Your task to perform on an android device: Open Chrome and go to settings Image 0: 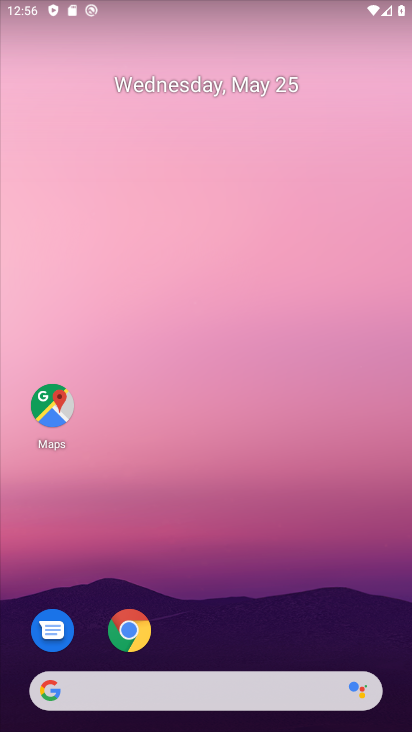
Step 0: drag from (333, 696) to (288, 333)
Your task to perform on an android device: Open Chrome and go to settings Image 1: 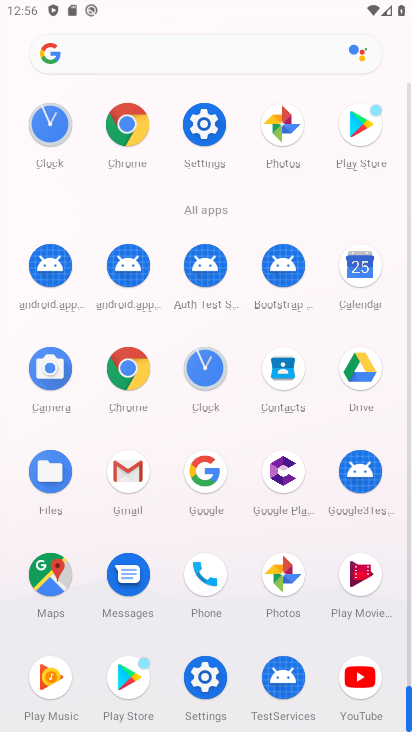
Step 1: drag from (268, 585) to (223, 212)
Your task to perform on an android device: Open Chrome and go to settings Image 2: 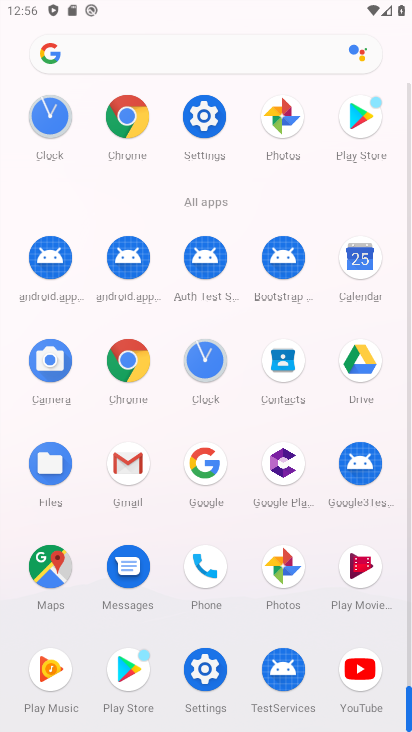
Step 2: click (191, 120)
Your task to perform on an android device: Open Chrome and go to settings Image 3: 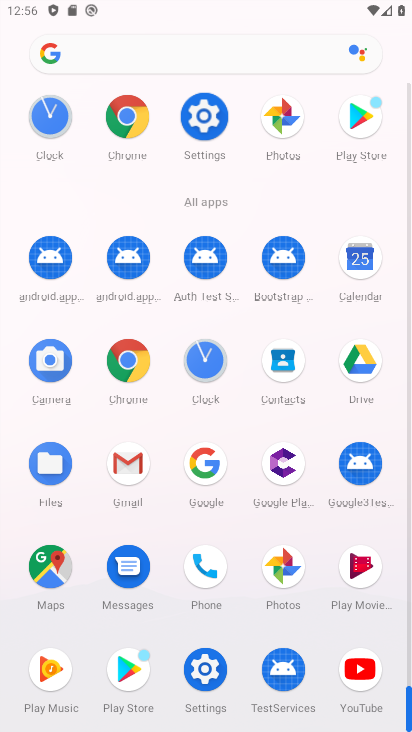
Step 3: click (201, 111)
Your task to perform on an android device: Open Chrome and go to settings Image 4: 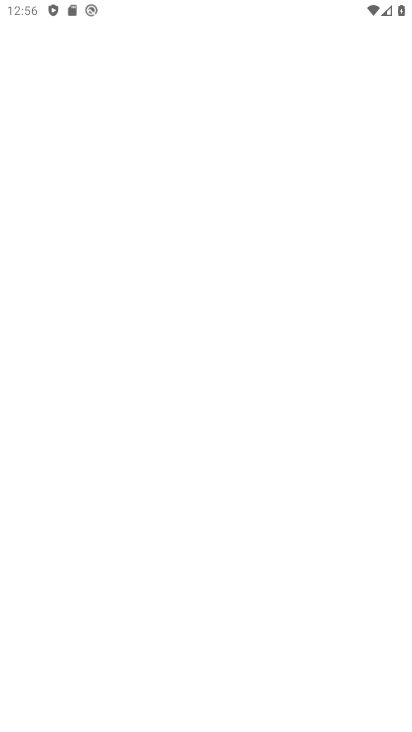
Step 4: click (201, 111)
Your task to perform on an android device: Open Chrome and go to settings Image 5: 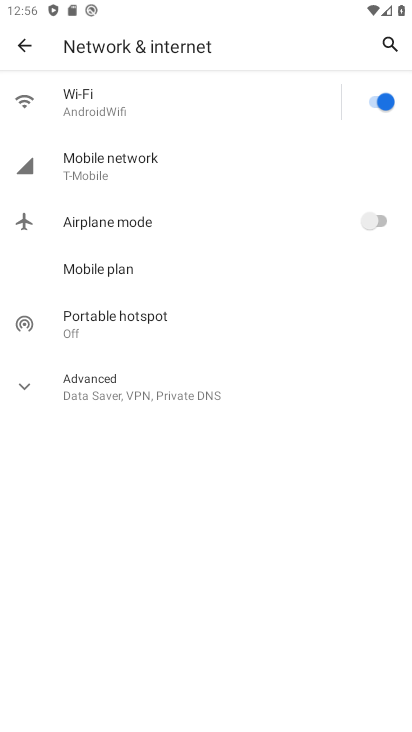
Step 5: click (15, 48)
Your task to perform on an android device: Open Chrome and go to settings Image 6: 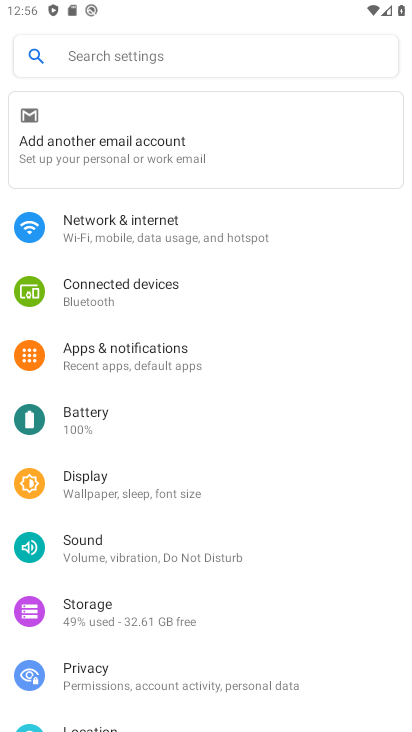
Step 6: click (130, 227)
Your task to perform on an android device: Open Chrome and go to settings Image 7: 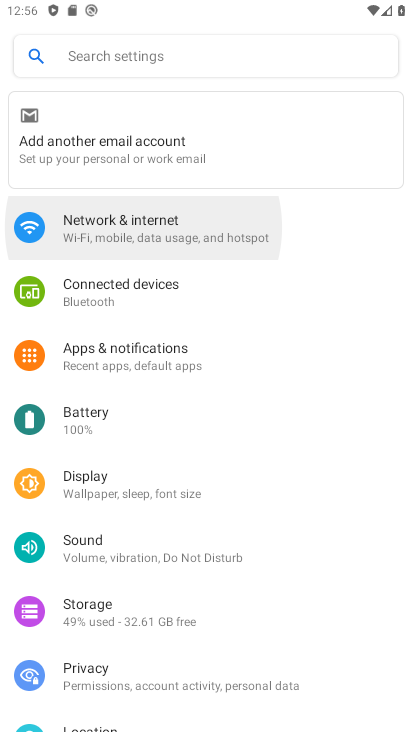
Step 7: click (130, 227)
Your task to perform on an android device: Open Chrome and go to settings Image 8: 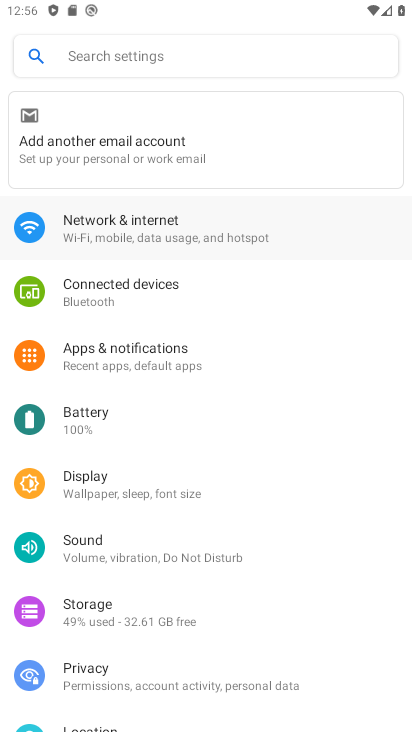
Step 8: click (131, 227)
Your task to perform on an android device: Open Chrome and go to settings Image 9: 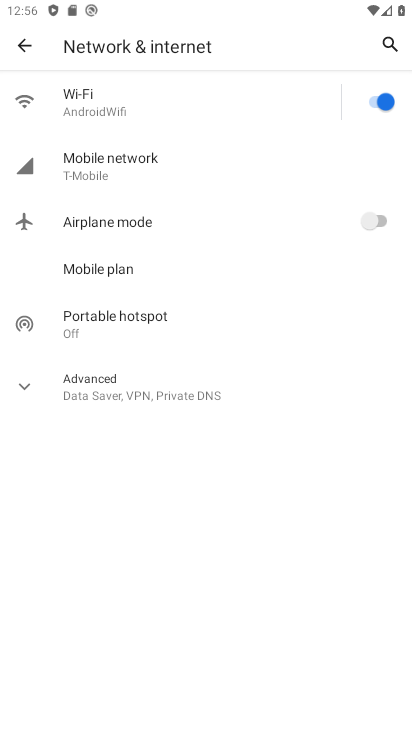
Step 9: click (134, 227)
Your task to perform on an android device: Open Chrome and go to settings Image 10: 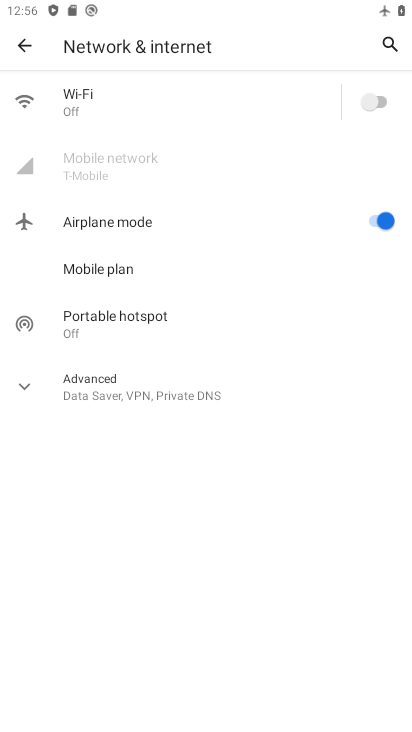
Step 10: click (360, 97)
Your task to perform on an android device: Open Chrome and go to settings Image 11: 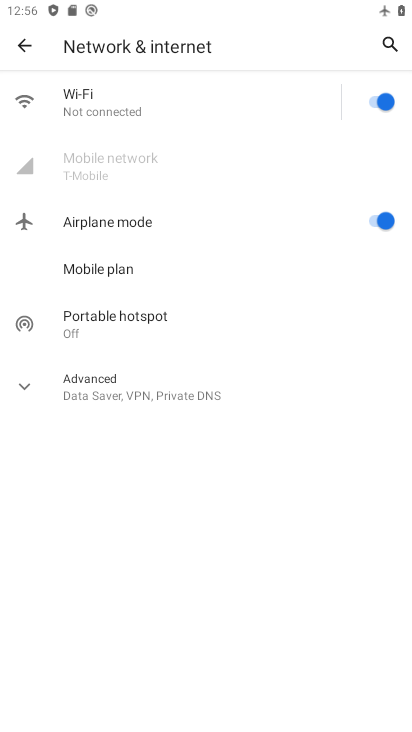
Step 11: click (382, 216)
Your task to perform on an android device: Open Chrome and go to settings Image 12: 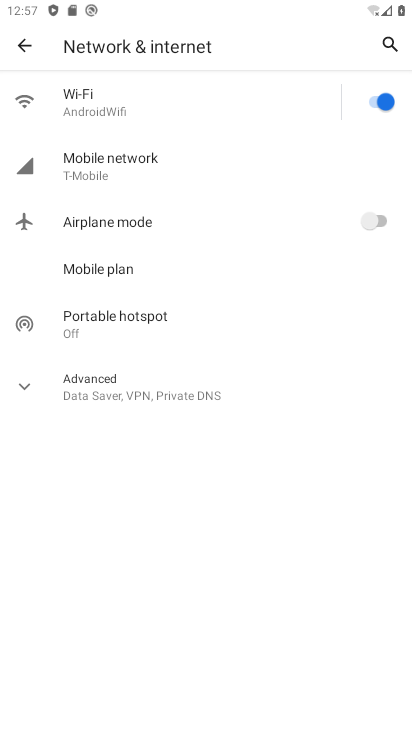
Step 12: click (374, 215)
Your task to perform on an android device: Open Chrome and go to settings Image 13: 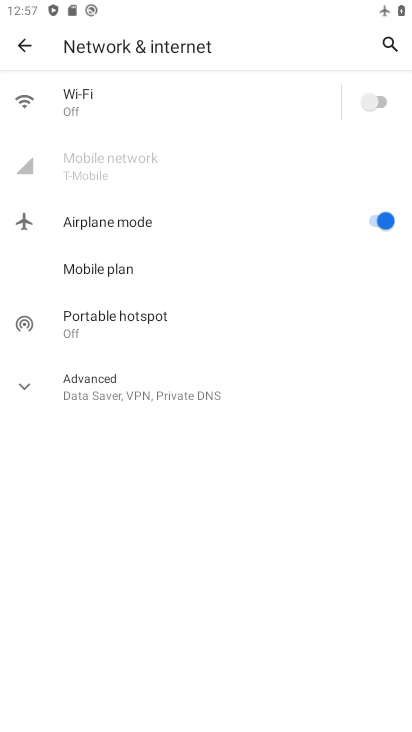
Step 13: click (18, 50)
Your task to perform on an android device: Open Chrome and go to settings Image 14: 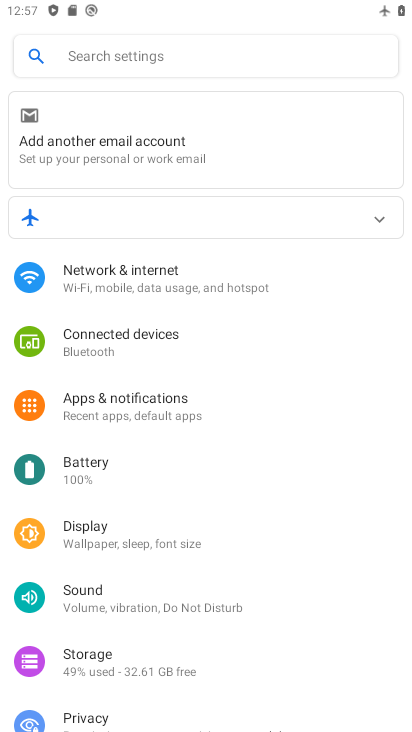
Step 14: click (370, 100)
Your task to perform on an android device: Open Chrome and go to settings Image 15: 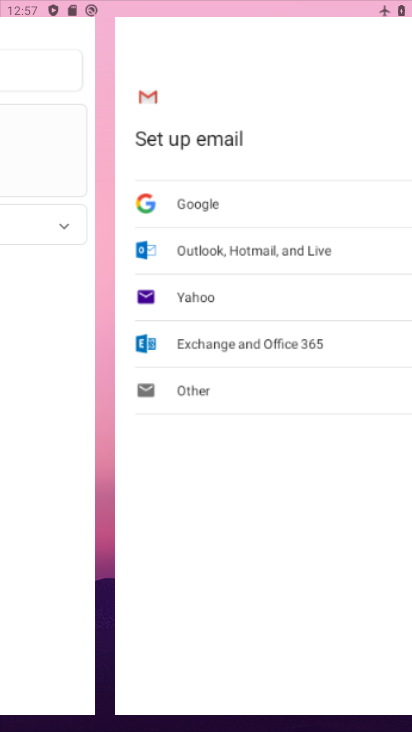
Step 15: click (137, 211)
Your task to perform on an android device: Open Chrome and go to settings Image 16: 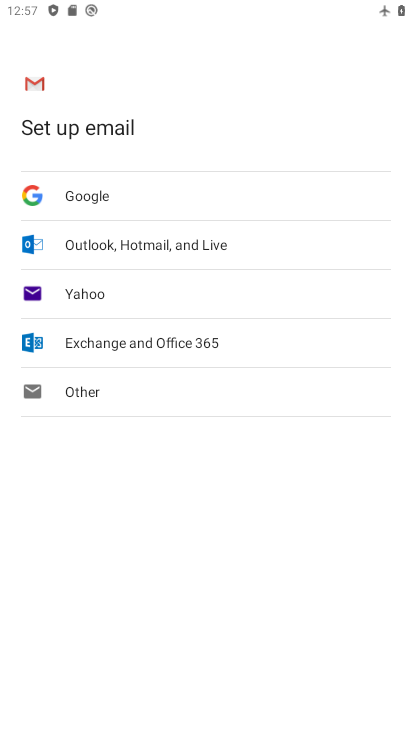
Step 16: click (159, 285)
Your task to perform on an android device: Open Chrome and go to settings Image 17: 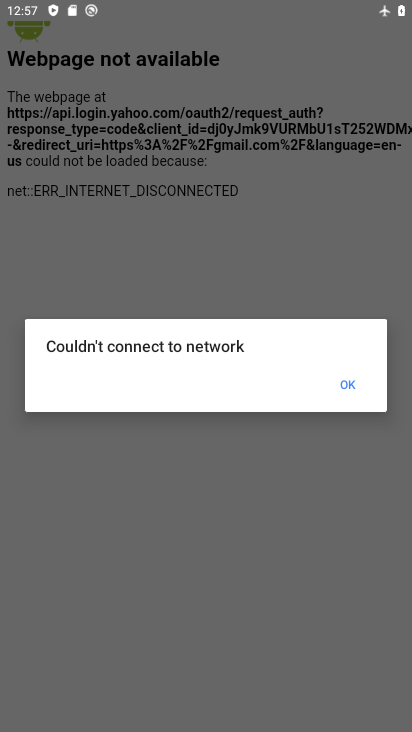
Step 17: press back button
Your task to perform on an android device: Open Chrome and go to settings Image 18: 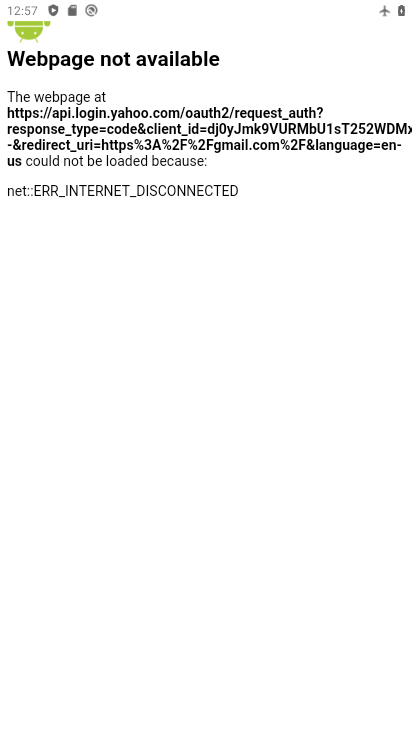
Step 18: press back button
Your task to perform on an android device: Open Chrome and go to settings Image 19: 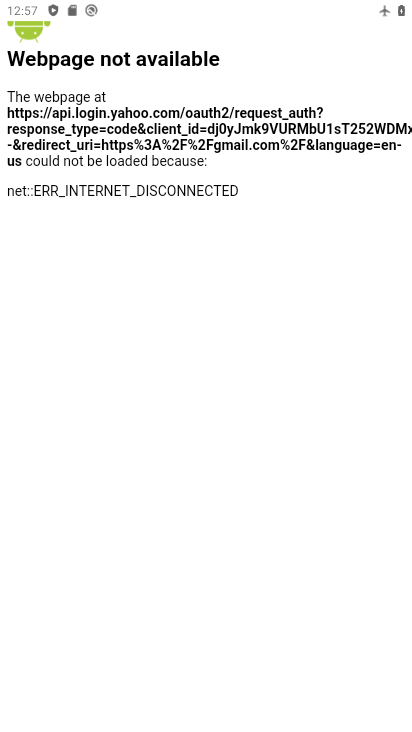
Step 19: press back button
Your task to perform on an android device: Open Chrome and go to settings Image 20: 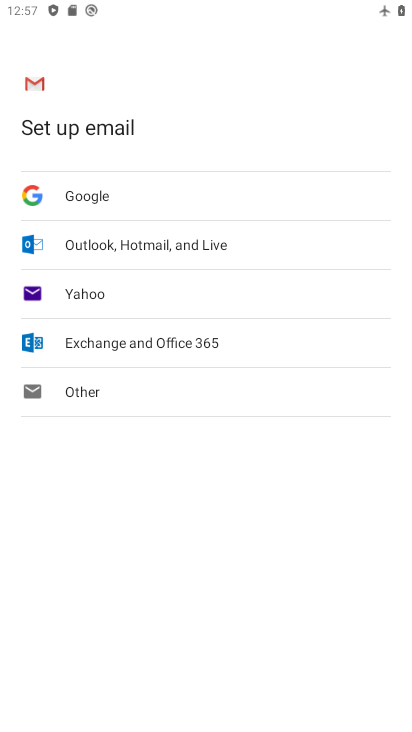
Step 20: press back button
Your task to perform on an android device: Open Chrome and go to settings Image 21: 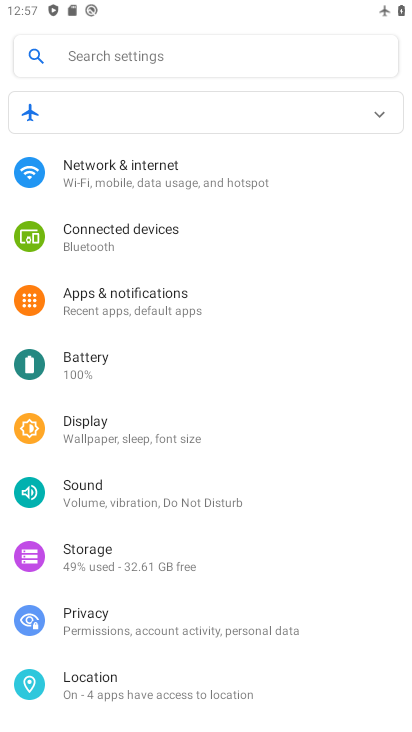
Step 21: press home button
Your task to perform on an android device: Open Chrome and go to settings Image 22: 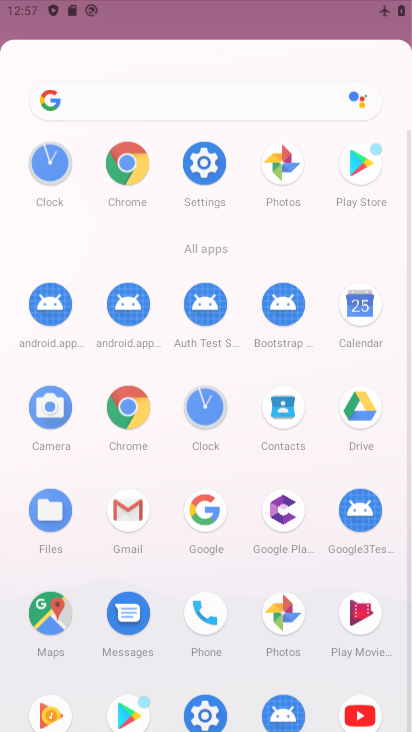
Step 22: press home button
Your task to perform on an android device: Open Chrome and go to settings Image 23: 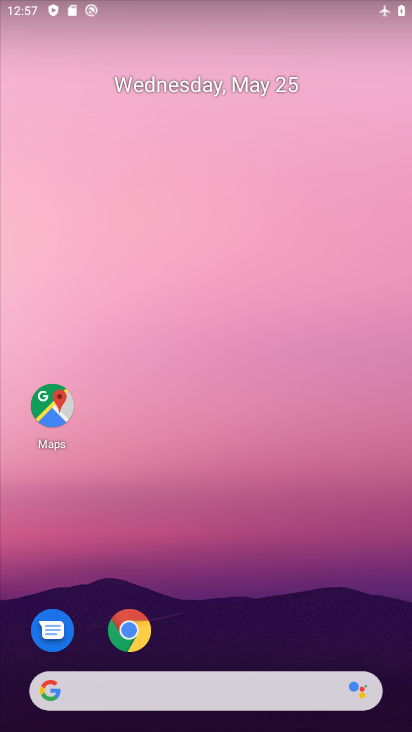
Step 23: press home button
Your task to perform on an android device: Open Chrome and go to settings Image 24: 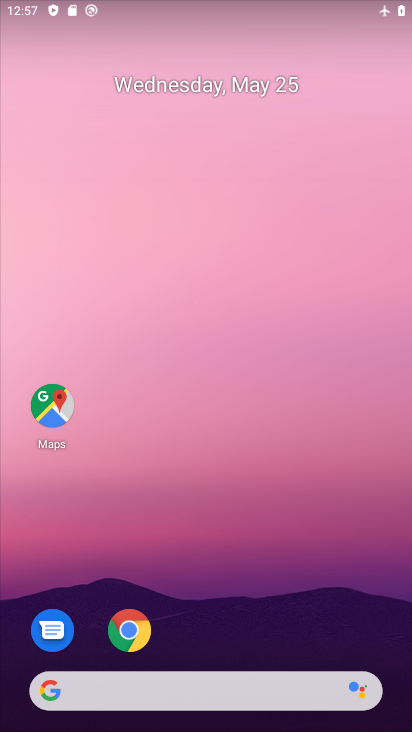
Step 24: drag from (286, 622) to (132, 20)
Your task to perform on an android device: Open Chrome and go to settings Image 25: 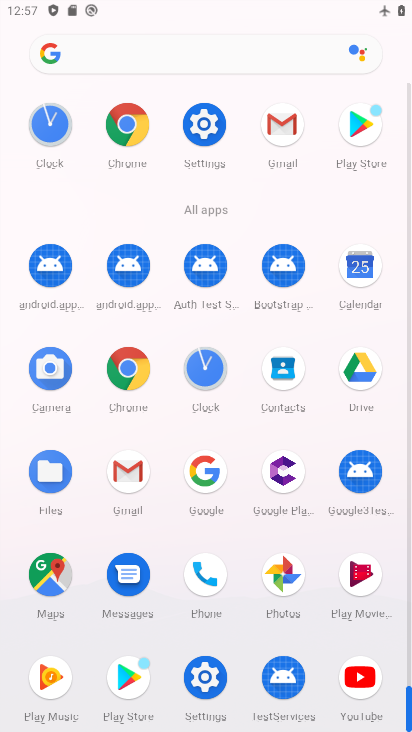
Step 25: click (201, 120)
Your task to perform on an android device: Open Chrome and go to settings Image 26: 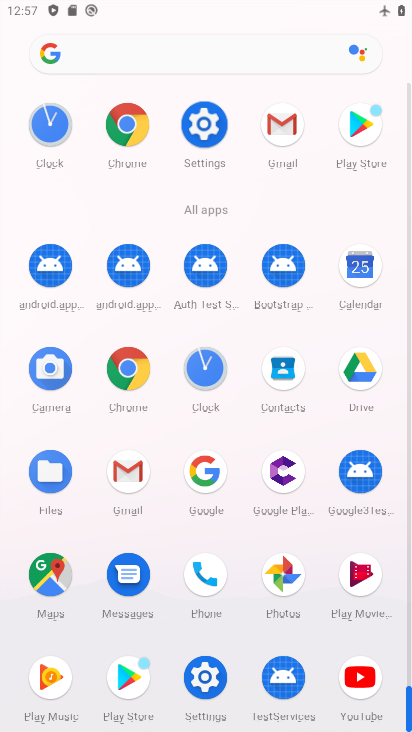
Step 26: click (203, 122)
Your task to perform on an android device: Open Chrome and go to settings Image 27: 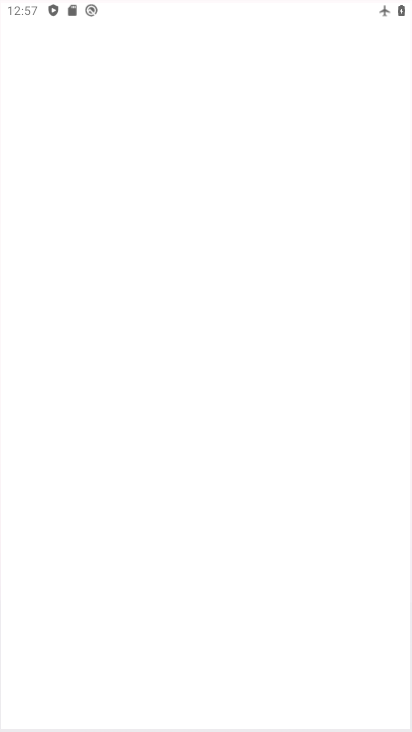
Step 27: click (203, 122)
Your task to perform on an android device: Open Chrome and go to settings Image 28: 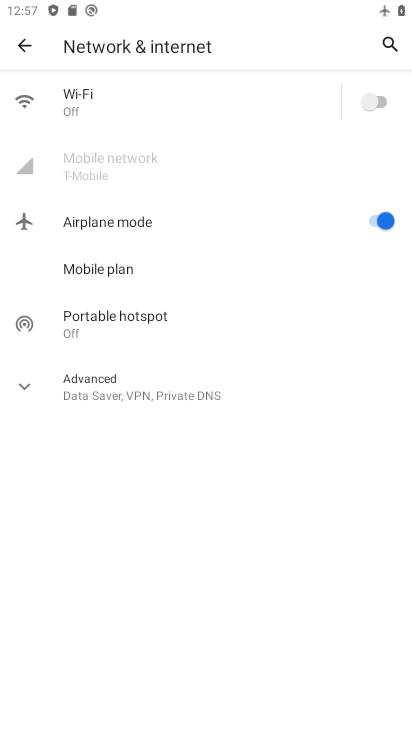
Step 28: click (365, 99)
Your task to perform on an android device: Open Chrome and go to settings Image 29: 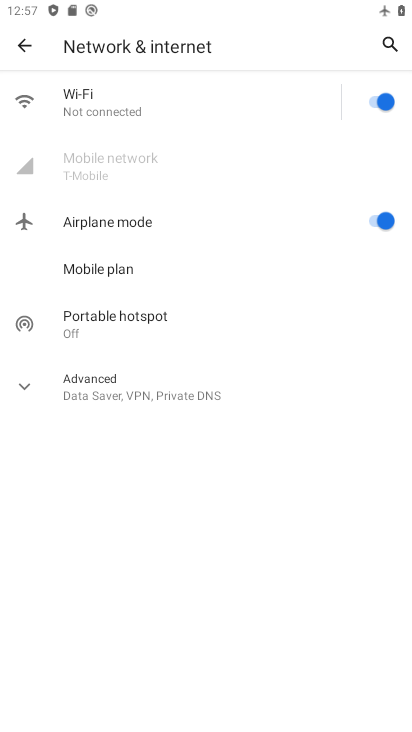
Step 29: click (382, 221)
Your task to perform on an android device: Open Chrome and go to settings Image 30: 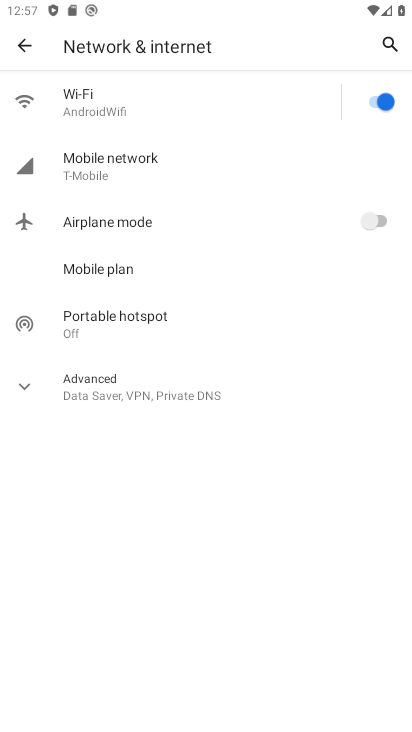
Step 30: task complete